Your task to perform on an android device: turn off airplane mode Image 0: 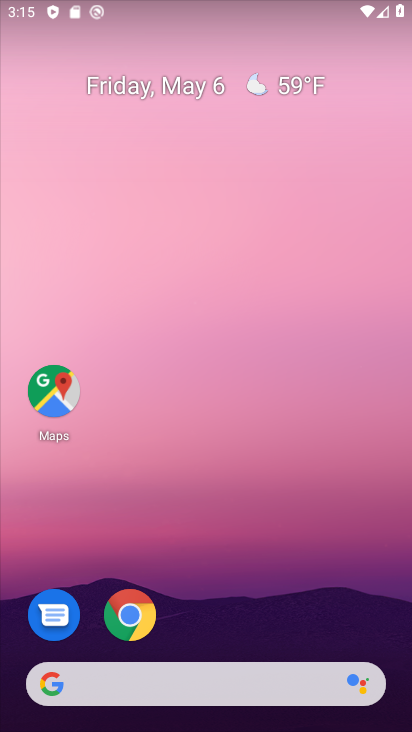
Step 0: drag from (293, 530) to (312, 0)
Your task to perform on an android device: turn off airplane mode Image 1: 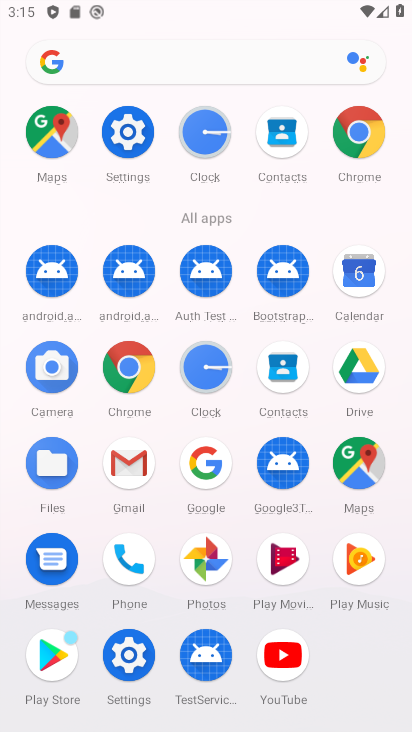
Step 1: click (125, 139)
Your task to perform on an android device: turn off airplane mode Image 2: 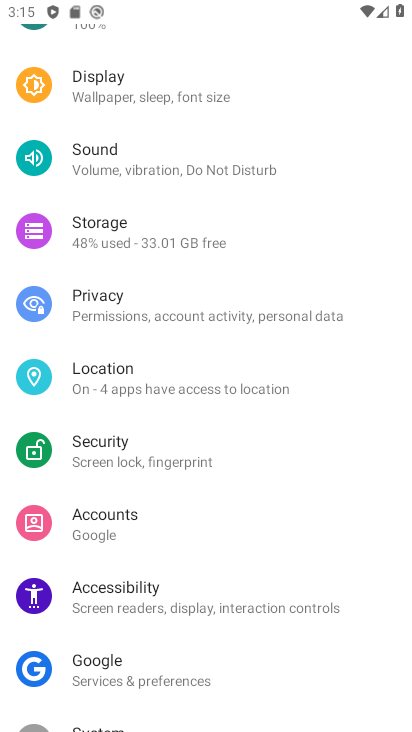
Step 2: drag from (337, 141) to (301, 525)
Your task to perform on an android device: turn off airplane mode Image 3: 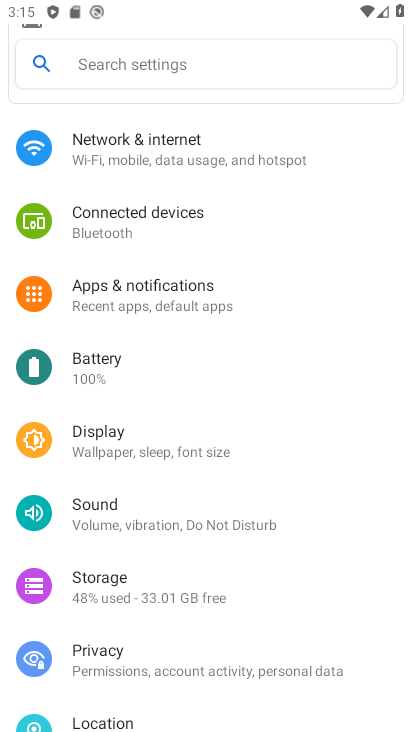
Step 3: click (149, 164)
Your task to perform on an android device: turn off airplane mode Image 4: 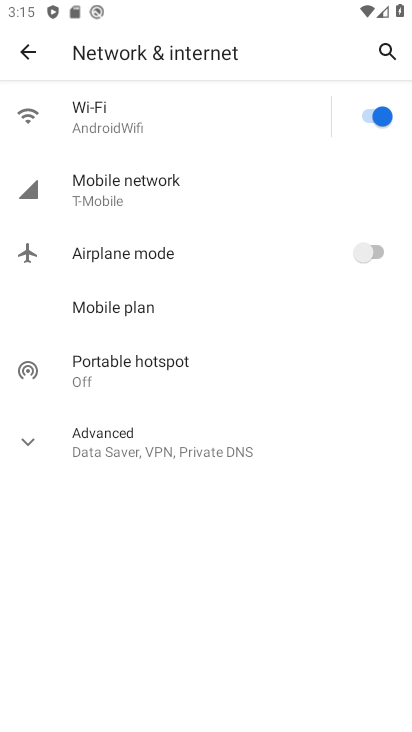
Step 4: task complete